Your task to perform on an android device: Find coffee shops on Maps Image 0: 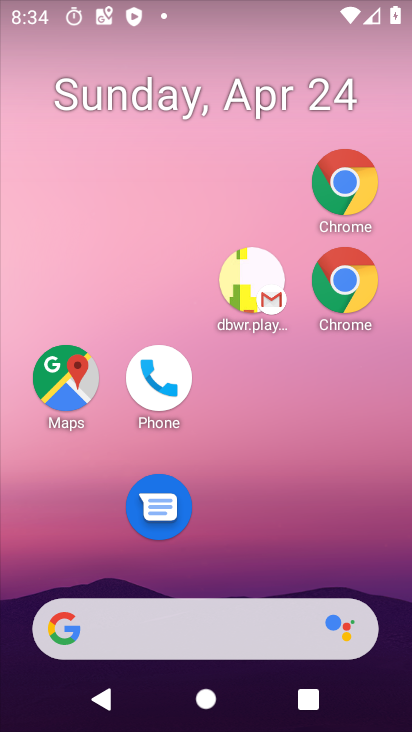
Step 0: drag from (268, 680) to (325, 25)
Your task to perform on an android device: Find coffee shops on Maps Image 1: 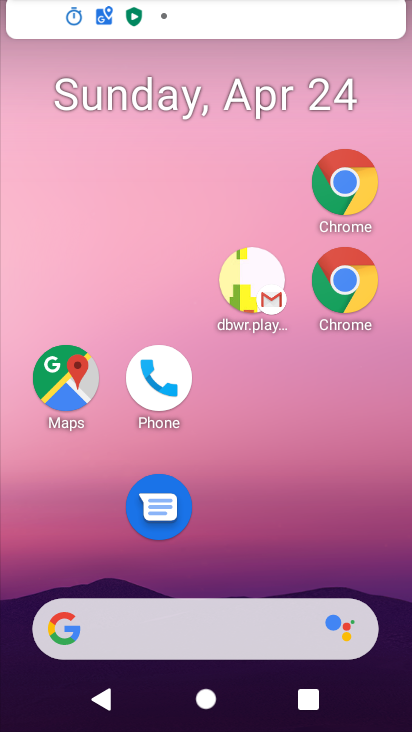
Step 1: drag from (198, 366) to (177, 3)
Your task to perform on an android device: Find coffee shops on Maps Image 2: 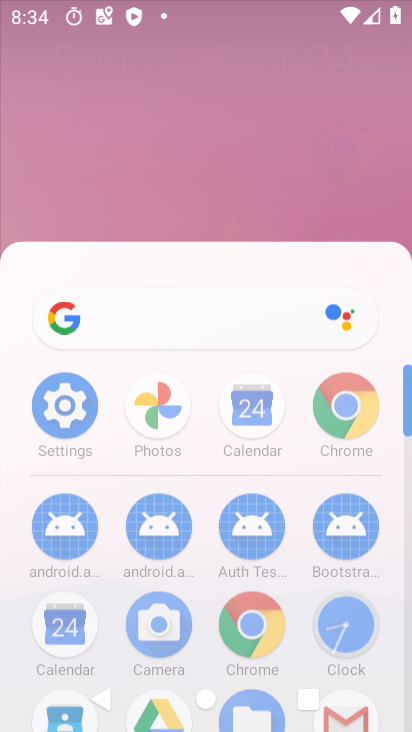
Step 2: drag from (239, 389) to (156, 13)
Your task to perform on an android device: Find coffee shops on Maps Image 3: 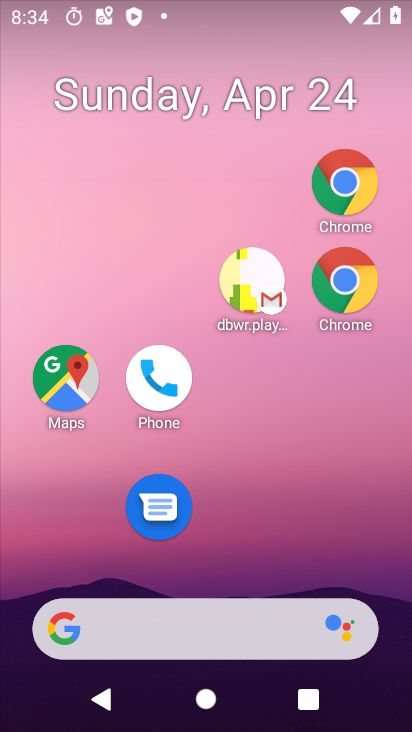
Step 3: drag from (166, 185) to (129, 47)
Your task to perform on an android device: Find coffee shops on Maps Image 4: 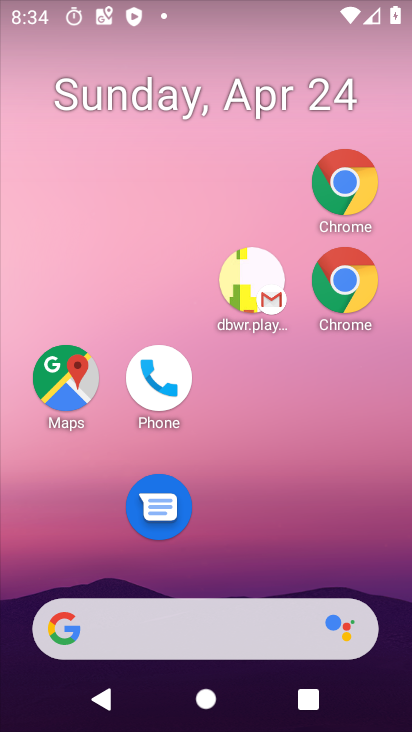
Step 4: click (66, 374)
Your task to perform on an android device: Find coffee shops on Maps Image 5: 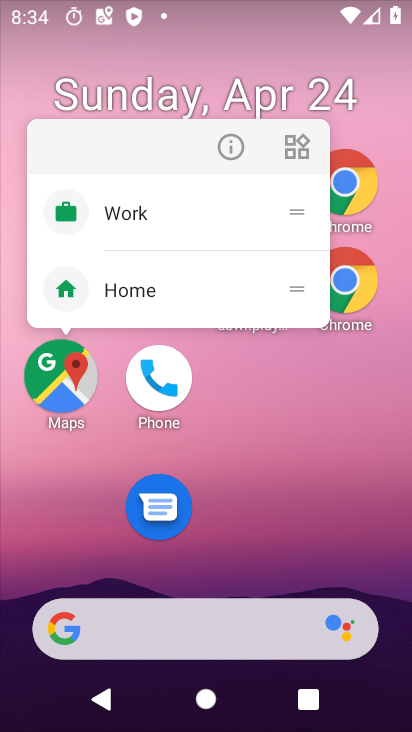
Step 5: click (60, 371)
Your task to perform on an android device: Find coffee shops on Maps Image 6: 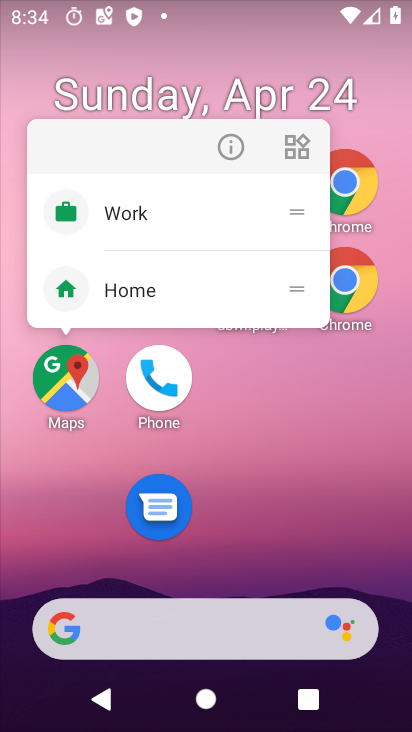
Step 6: click (51, 370)
Your task to perform on an android device: Find coffee shops on Maps Image 7: 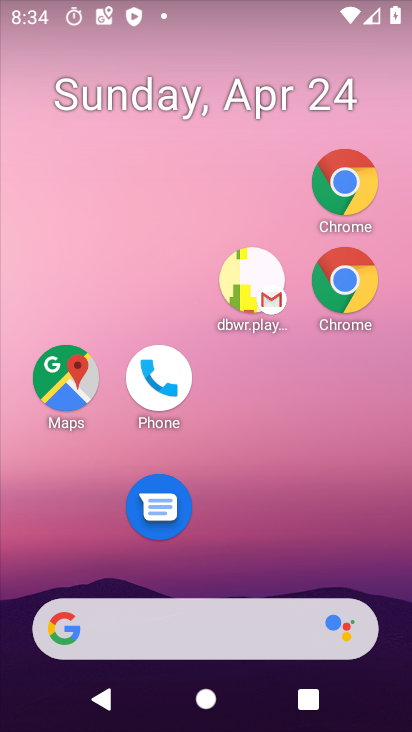
Step 7: click (61, 384)
Your task to perform on an android device: Find coffee shops on Maps Image 8: 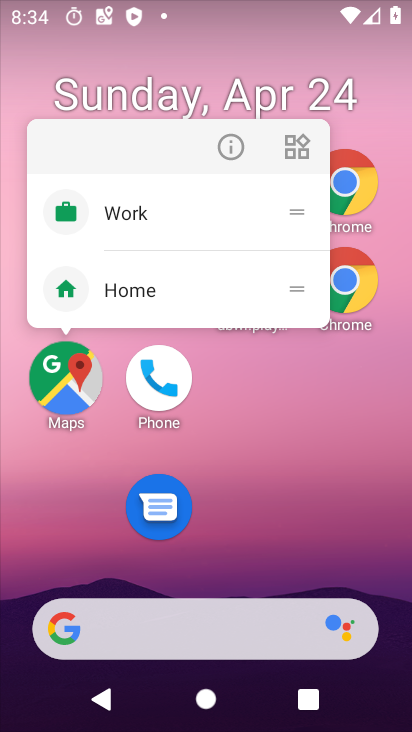
Step 8: click (61, 384)
Your task to perform on an android device: Find coffee shops on Maps Image 9: 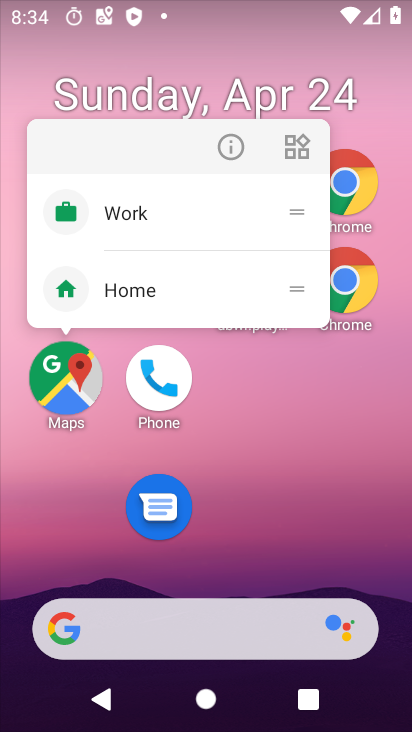
Step 9: click (67, 379)
Your task to perform on an android device: Find coffee shops on Maps Image 10: 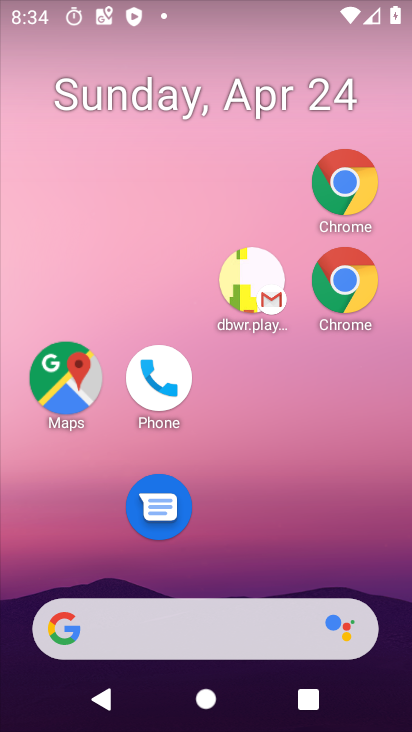
Step 10: click (83, 341)
Your task to perform on an android device: Find coffee shops on Maps Image 11: 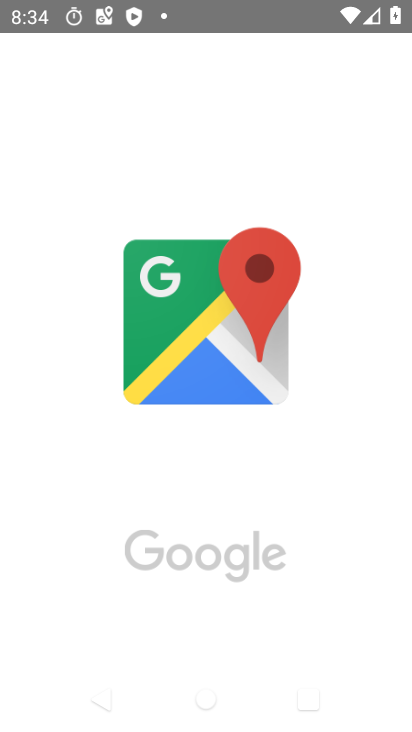
Step 11: drag from (79, 346) to (70, 387)
Your task to perform on an android device: Find coffee shops on Maps Image 12: 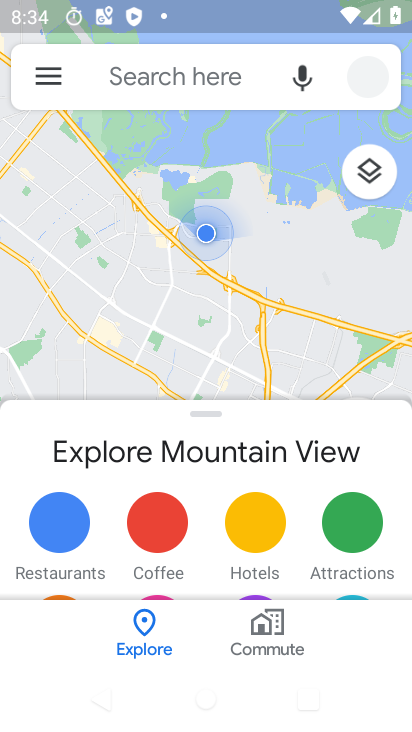
Step 12: click (129, 76)
Your task to perform on an android device: Find coffee shops on Maps Image 13: 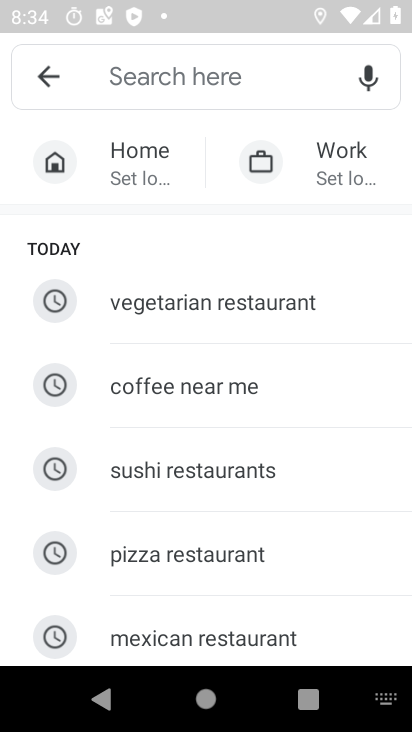
Step 13: click (219, 383)
Your task to perform on an android device: Find coffee shops on Maps Image 14: 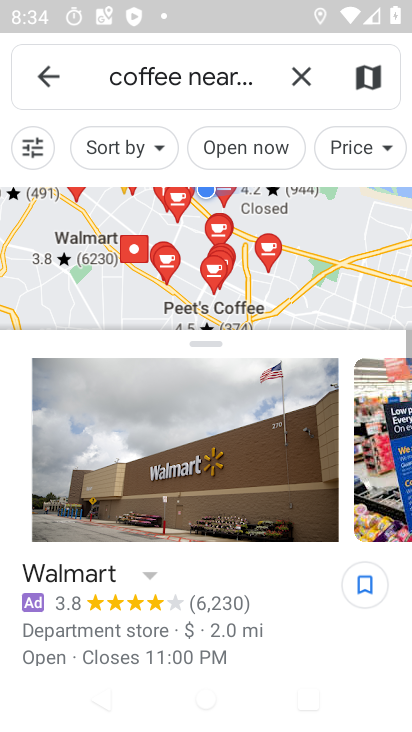
Step 14: task complete